Your task to perform on an android device: change timer sound Image 0: 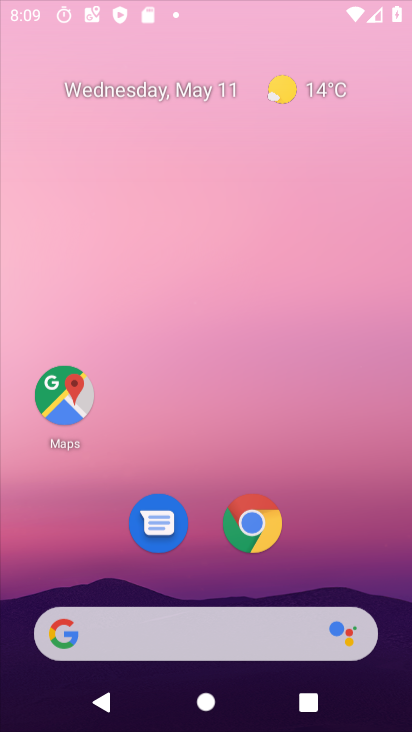
Step 0: drag from (275, 466) to (277, 163)
Your task to perform on an android device: change timer sound Image 1: 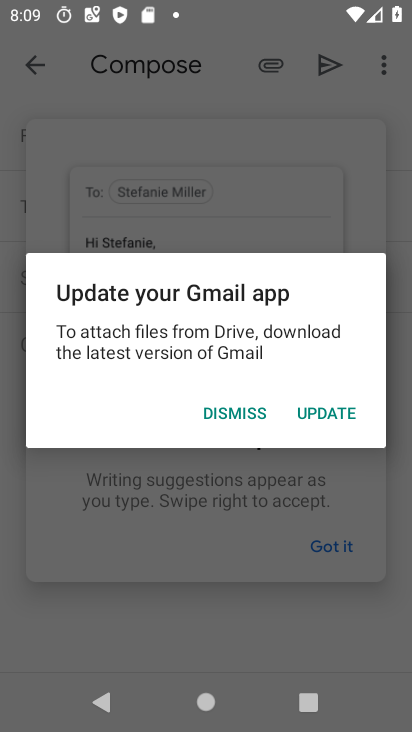
Step 1: press home button
Your task to perform on an android device: change timer sound Image 2: 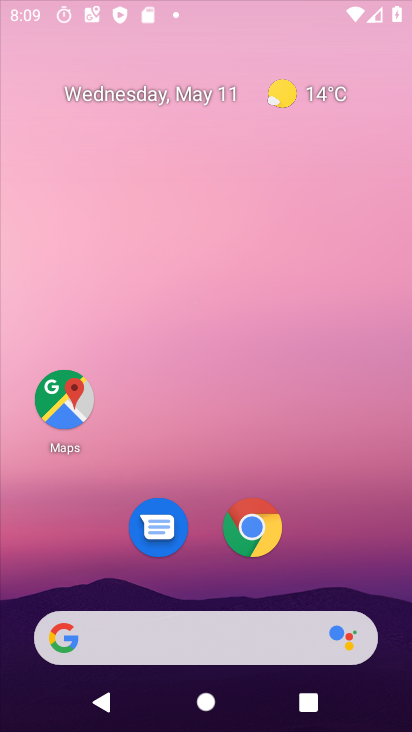
Step 2: drag from (291, 615) to (292, 222)
Your task to perform on an android device: change timer sound Image 3: 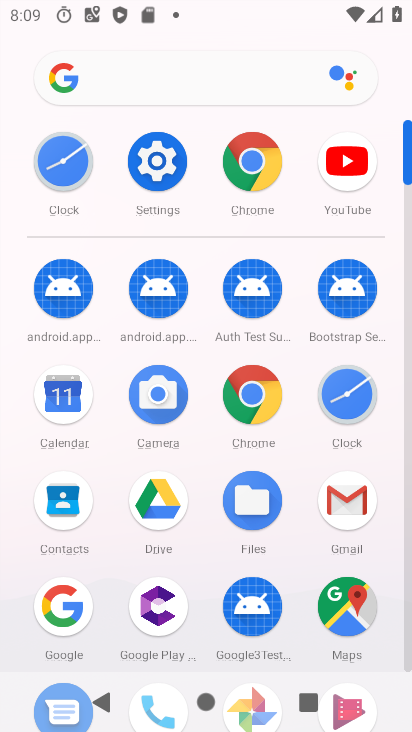
Step 3: click (361, 395)
Your task to perform on an android device: change timer sound Image 4: 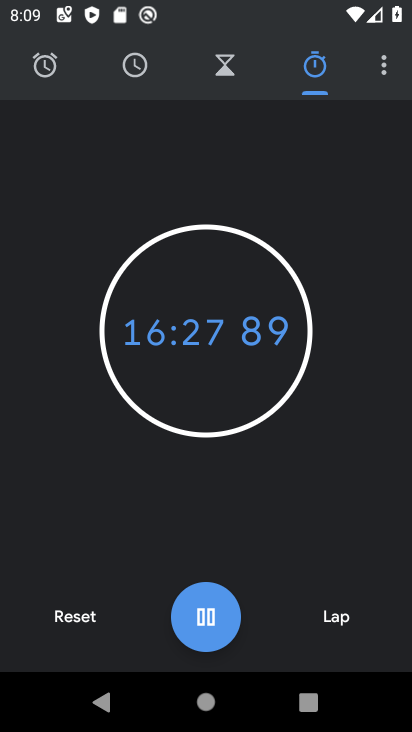
Step 4: click (382, 67)
Your task to perform on an android device: change timer sound Image 5: 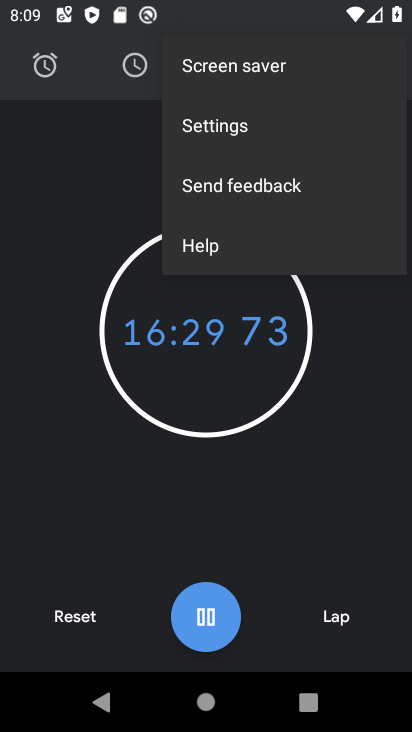
Step 5: click (240, 137)
Your task to perform on an android device: change timer sound Image 6: 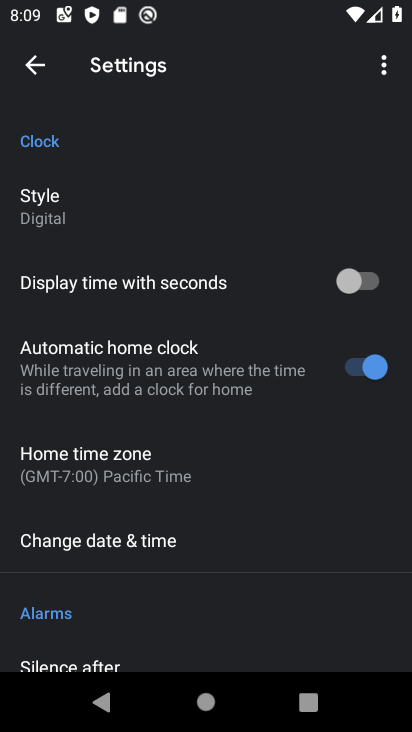
Step 6: drag from (179, 434) to (196, 171)
Your task to perform on an android device: change timer sound Image 7: 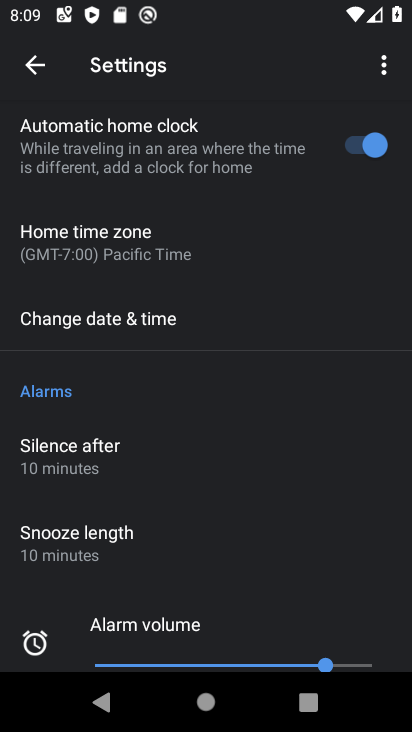
Step 7: drag from (150, 400) to (162, 261)
Your task to perform on an android device: change timer sound Image 8: 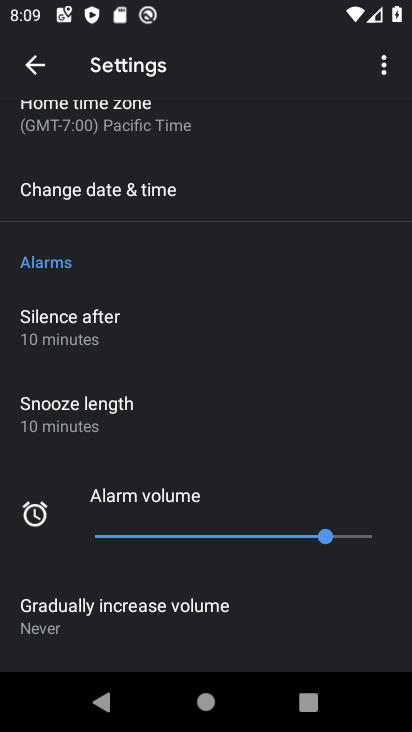
Step 8: drag from (162, 387) to (203, 184)
Your task to perform on an android device: change timer sound Image 9: 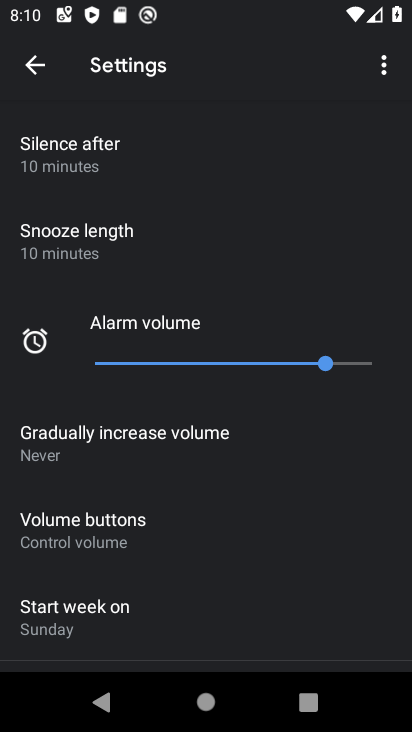
Step 9: drag from (155, 417) to (180, 245)
Your task to perform on an android device: change timer sound Image 10: 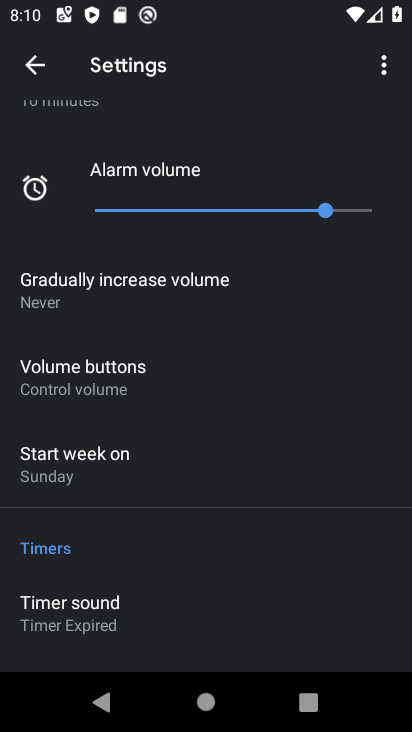
Step 10: drag from (156, 504) to (186, 250)
Your task to perform on an android device: change timer sound Image 11: 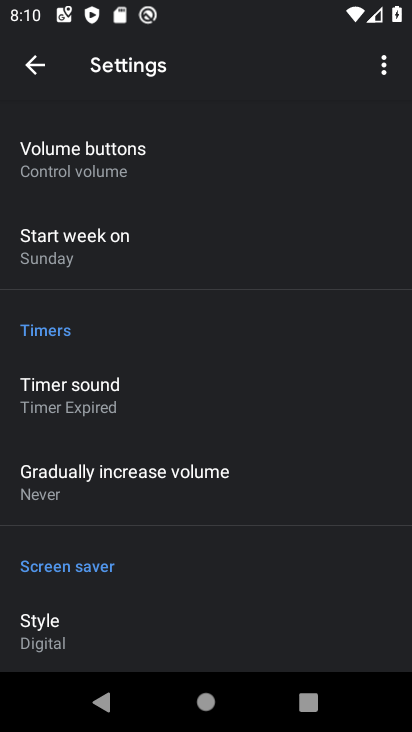
Step 11: click (119, 401)
Your task to perform on an android device: change timer sound Image 12: 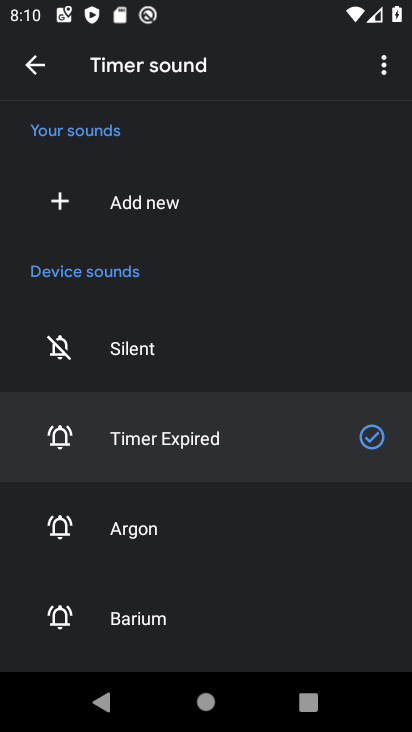
Step 12: click (138, 531)
Your task to perform on an android device: change timer sound Image 13: 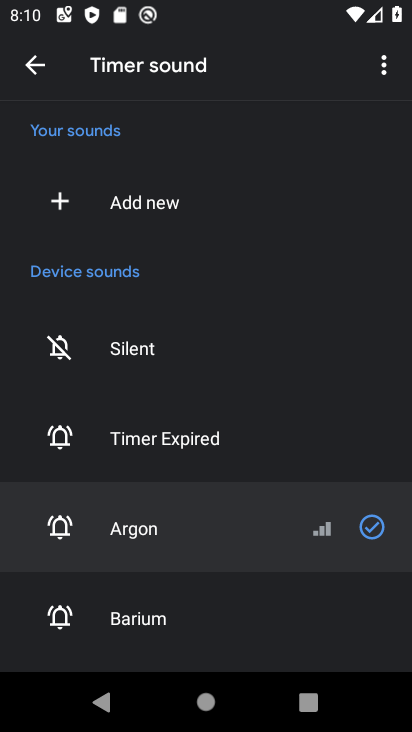
Step 13: task complete